Your task to perform on an android device: toggle notification dots Image 0: 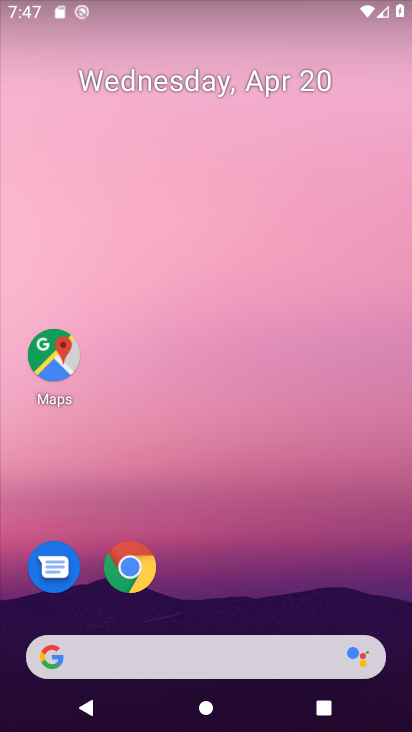
Step 0: drag from (312, 376) to (268, 11)
Your task to perform on an android device: toggle notification dots Image 1: 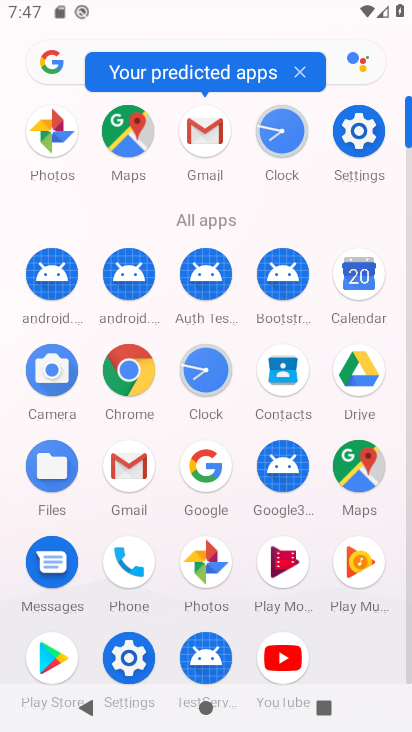
Step 1: click (374, 154)
Your task to perform on an android device: toggle notification dots Image 2: 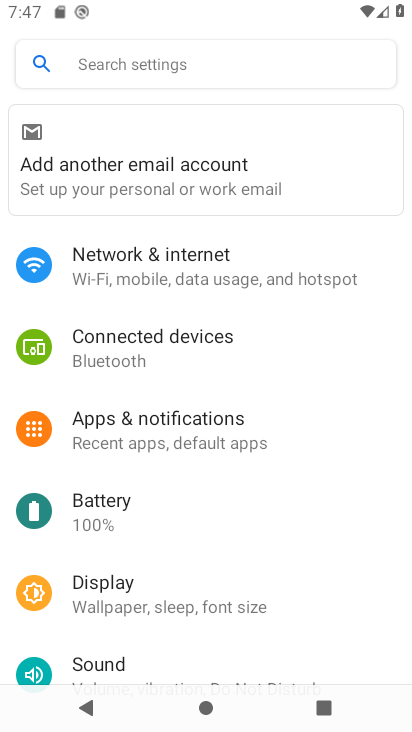
Step 2: click (203, 429)
Your task to perform on an android device: toggle notification dots Image 3: 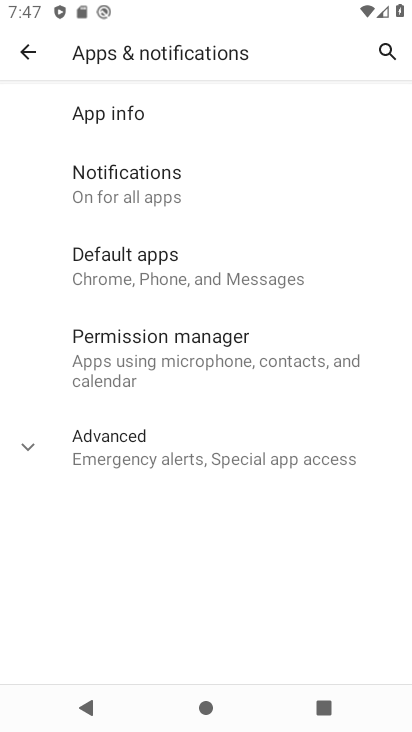
Step 3: click (158, 454)
Your task to perform on an android device: toggle notification dots Image 4: 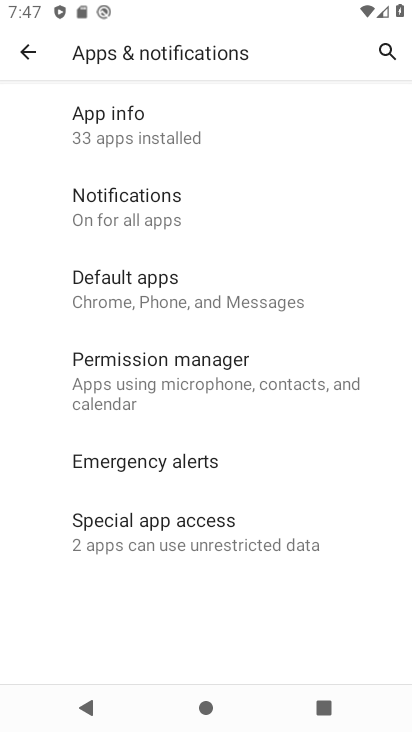
Step 4: drag from (295, 416) to (293, 573)
Your task to perform on an android device: toggle notification dots Image 5: 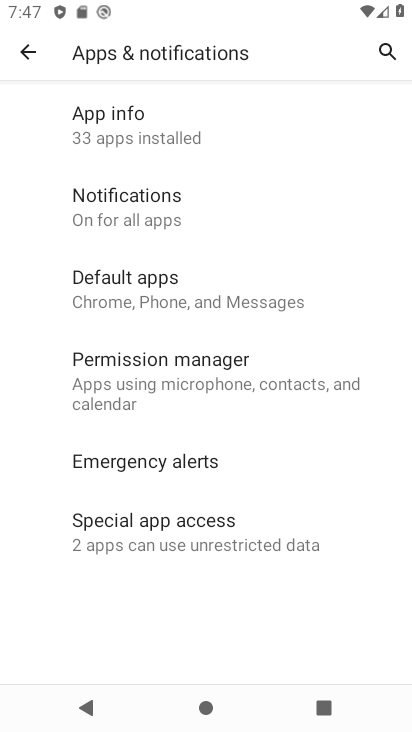
Step 5: click (145, 222)
Your task to perform on an android device: toggle notification dots Image 6: 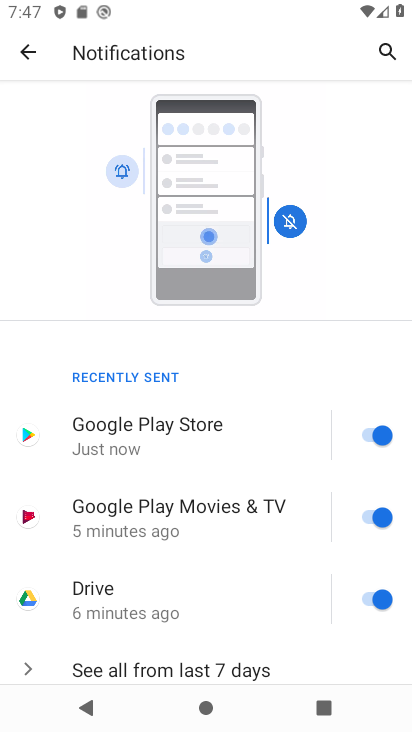
Step 6: drag from (213, 589) to (280, 169)
Your task to perform on an android device: toggle notification dots Image 7: 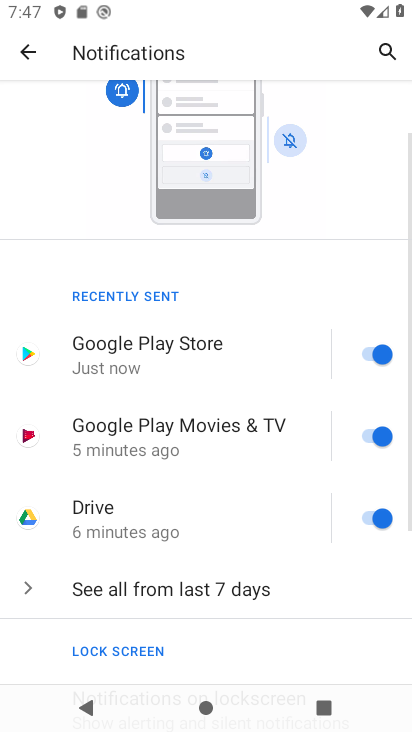
Step 7: drag from (247, 584) to (362, 1)
Your task to perform on an android device: toggle notification dots Image 8: 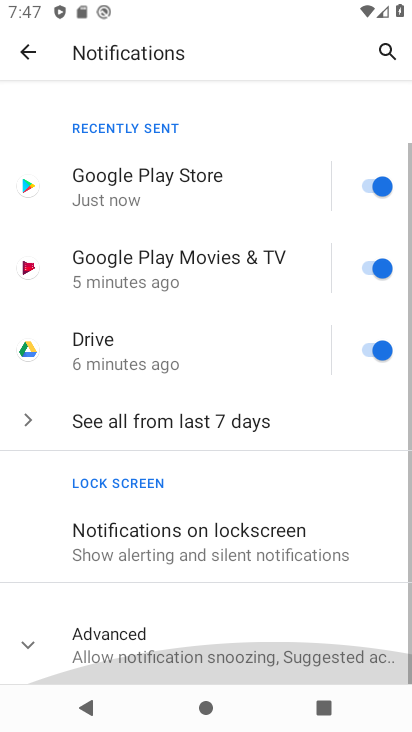
Step 8: drag from (290, 625) to (328, 194)
Your task to perform on an android device: toggle notification dots Image 9: 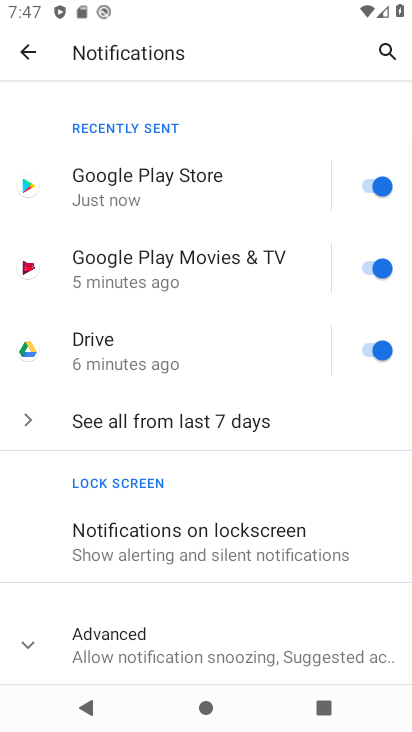
Step 9: click (115, 651)
Your task to perform on an android device: toggle notification dots Image 10: 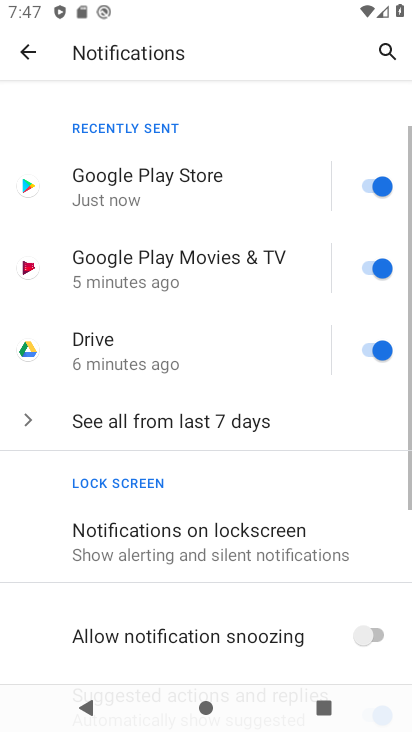
Step 10: drag from (184, 539) to (208, 310)
Your task to perform on an android device: toggle notification dots Image 11: 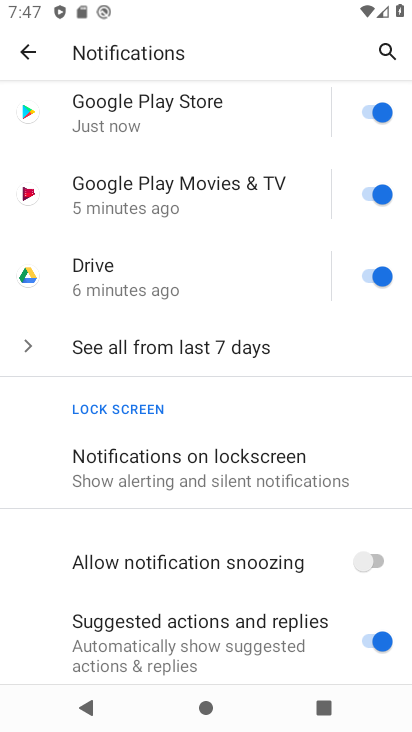
Step 11: drag from (232, 549) to (243, 305)
Your task to perform on an android device: toggle notification dots Image 12: 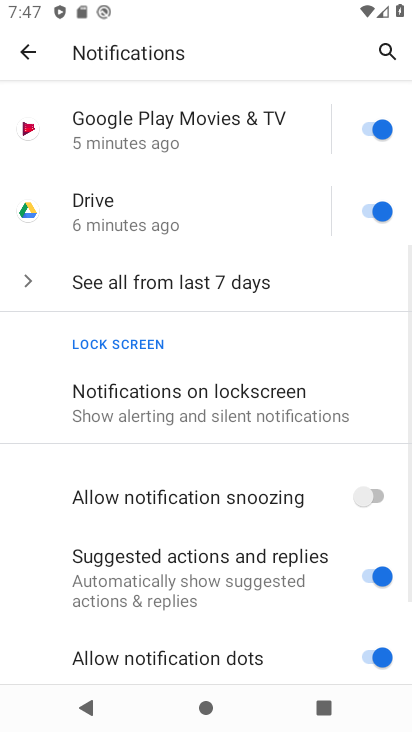
Step 12: drag from (230, 646) to (269, 321)
Your task to perform on an android device: toggle notification dots Image 13: 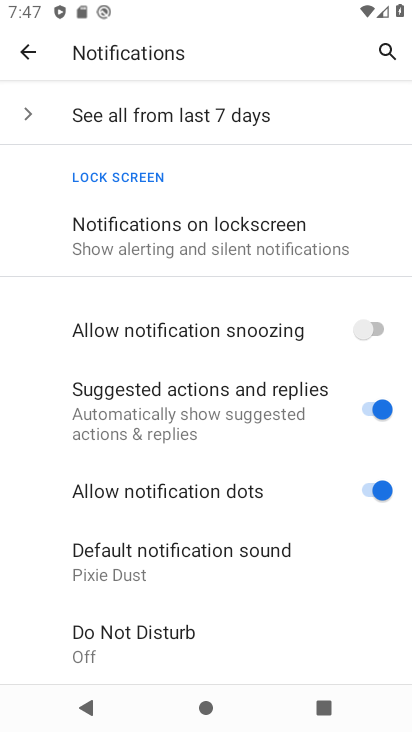
Step 13: click (374, 491)
Your task to perform on an android device: toggle notification dots Image 14: 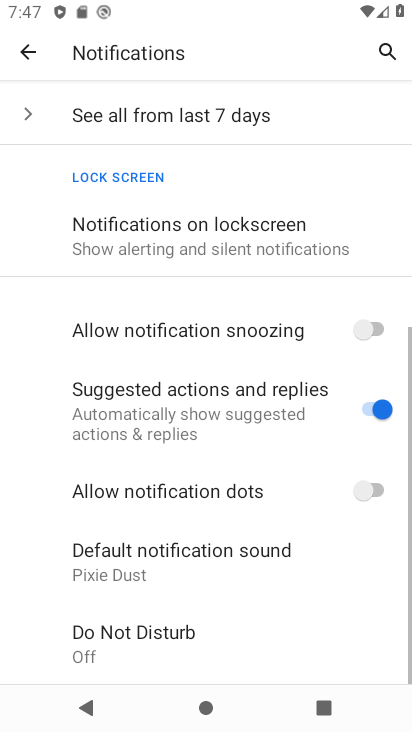
Step 14: task complete